Your task to perform on an android device: What's on the menu at Domino's? Image 0: 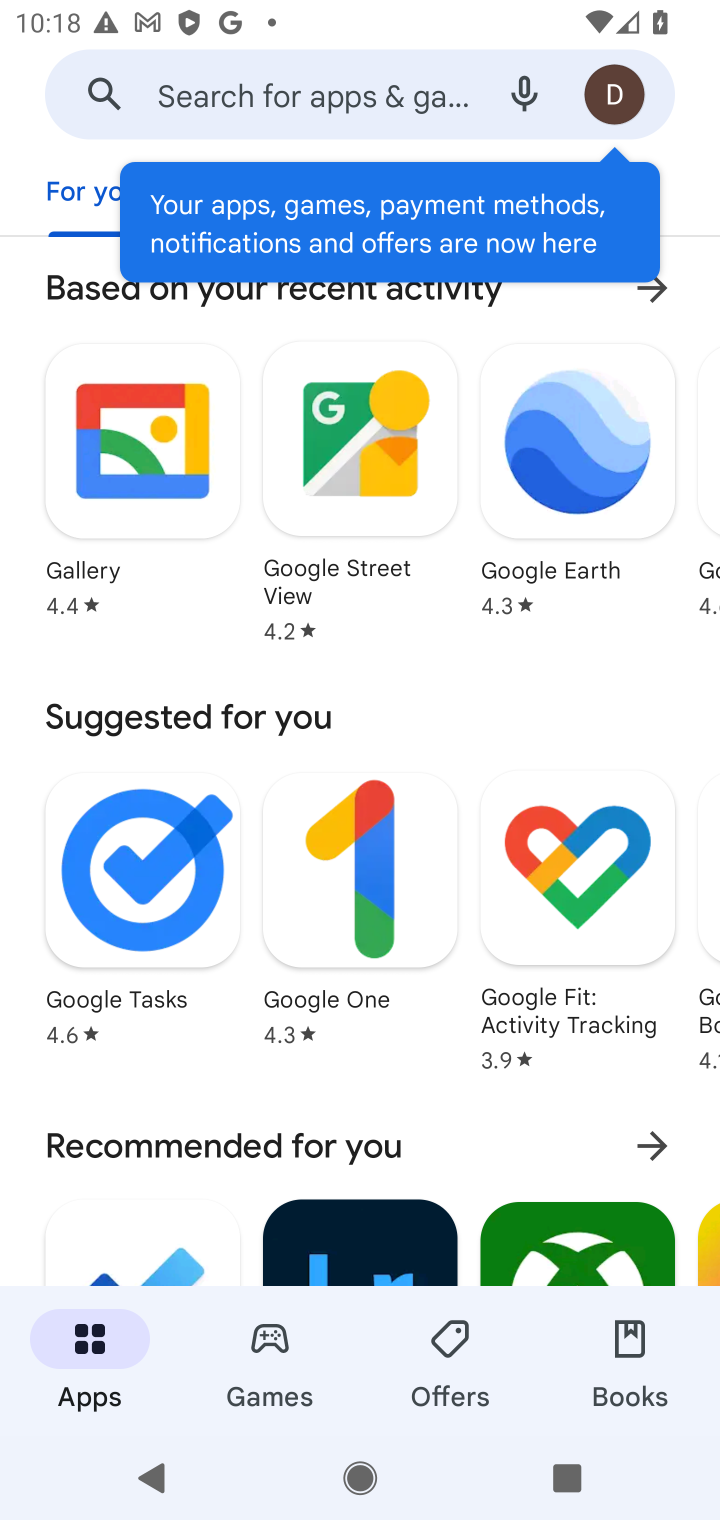
Step 0: press home button
Your task to perform on an android device: What's on the menu at Domino's? Image 1: 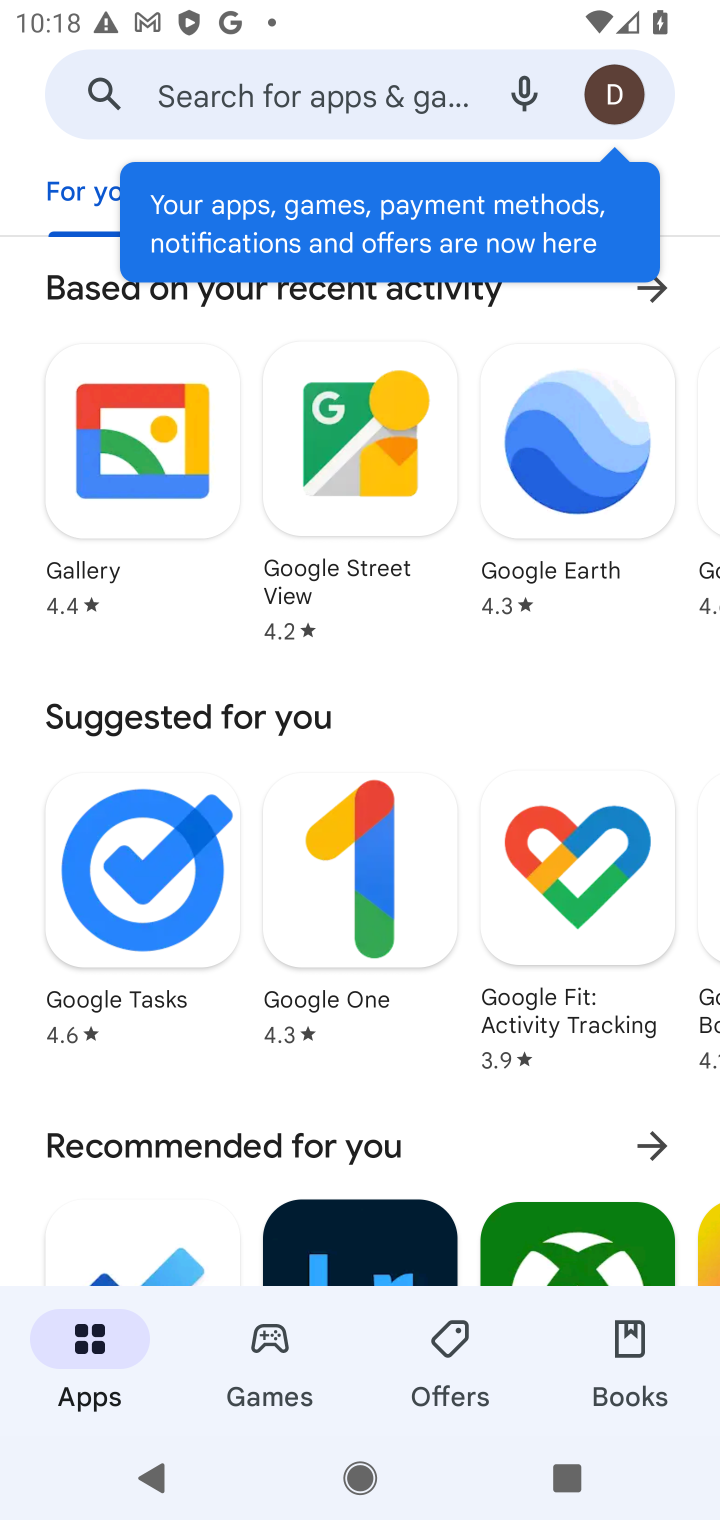
Step 1: press home button
Your task to perform on an android device: What's on the menu at Domino's? Image 2: 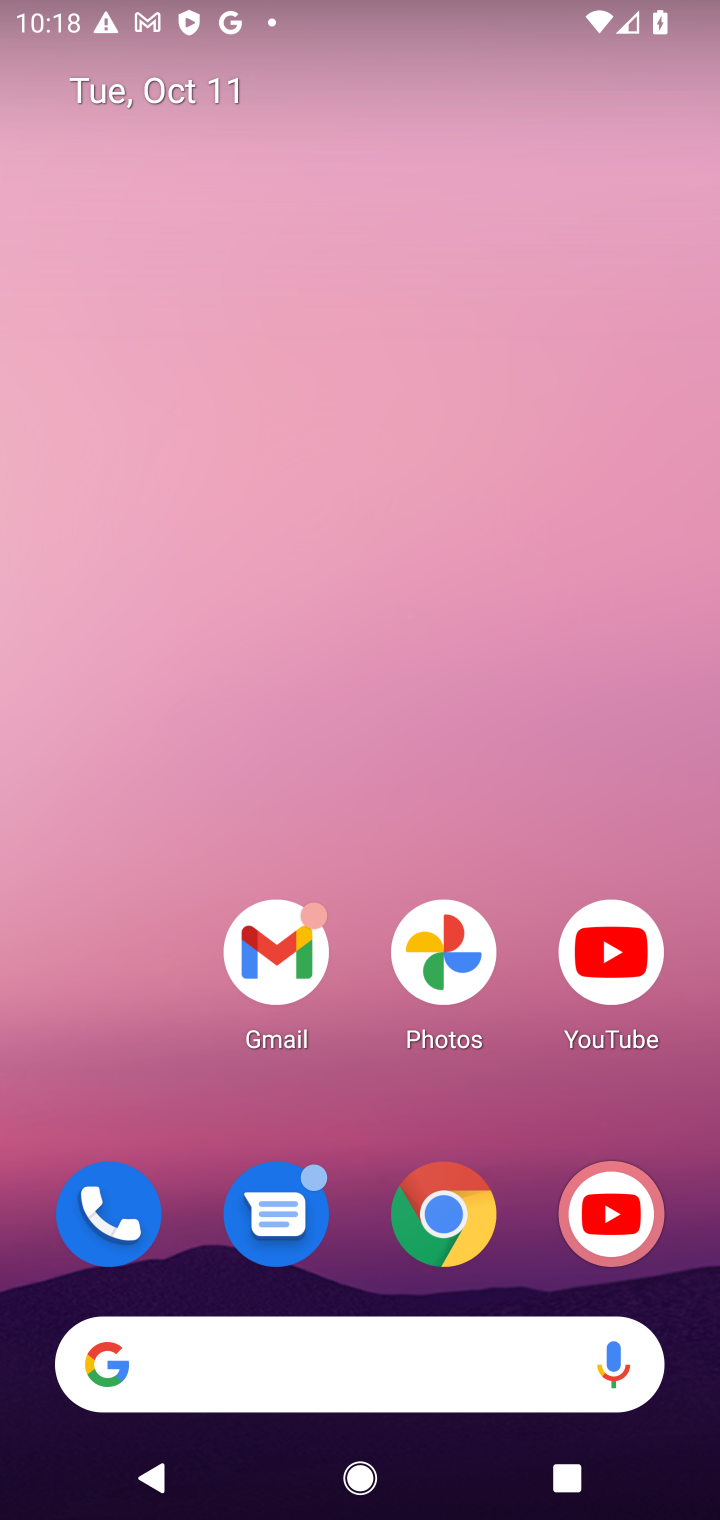
Step 2: drag from (357, 552) to (348, 1)
Your task to perform on an android device: What's on the menu at Domino's? Image 3: 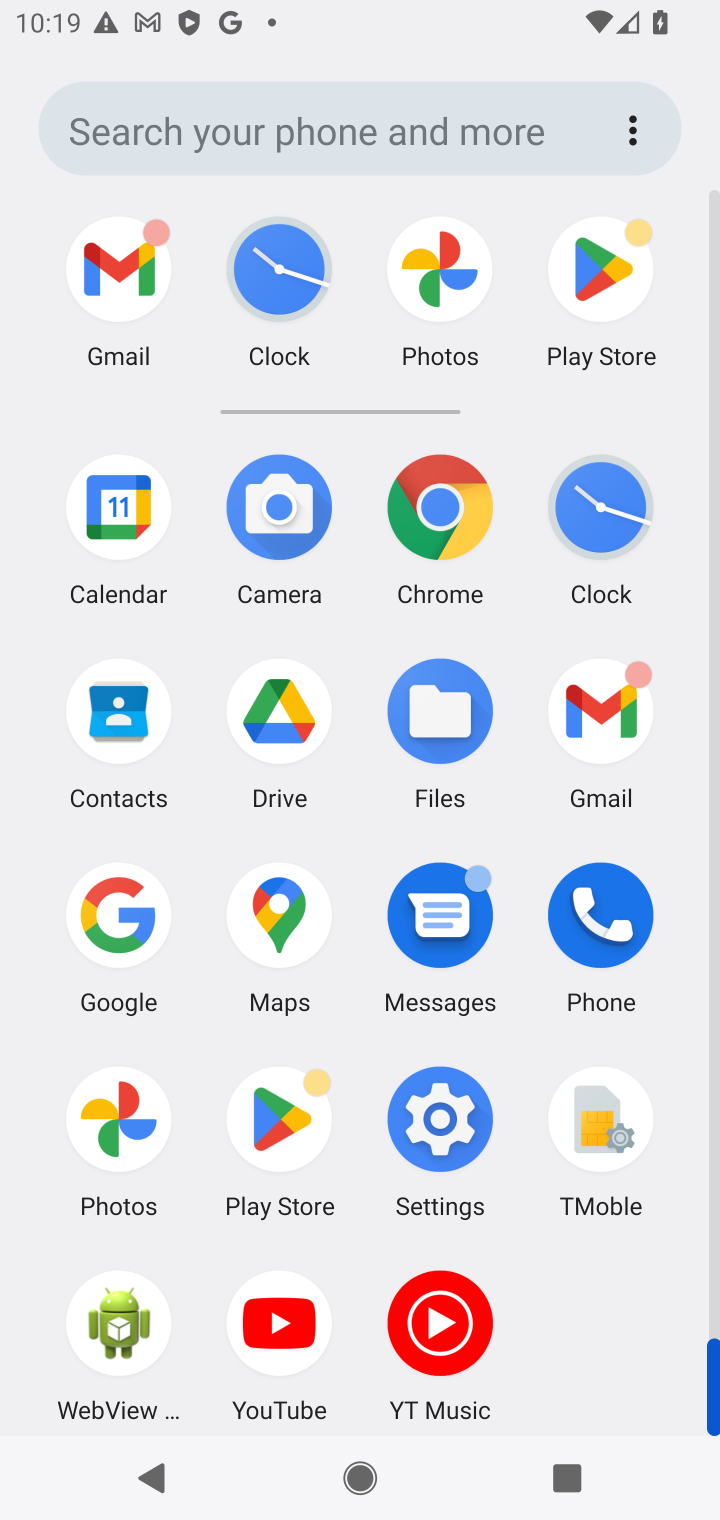
Step 3: click (425, 499)
Your task to perform on an android device: What's on the menu at Domino's? Image 4: 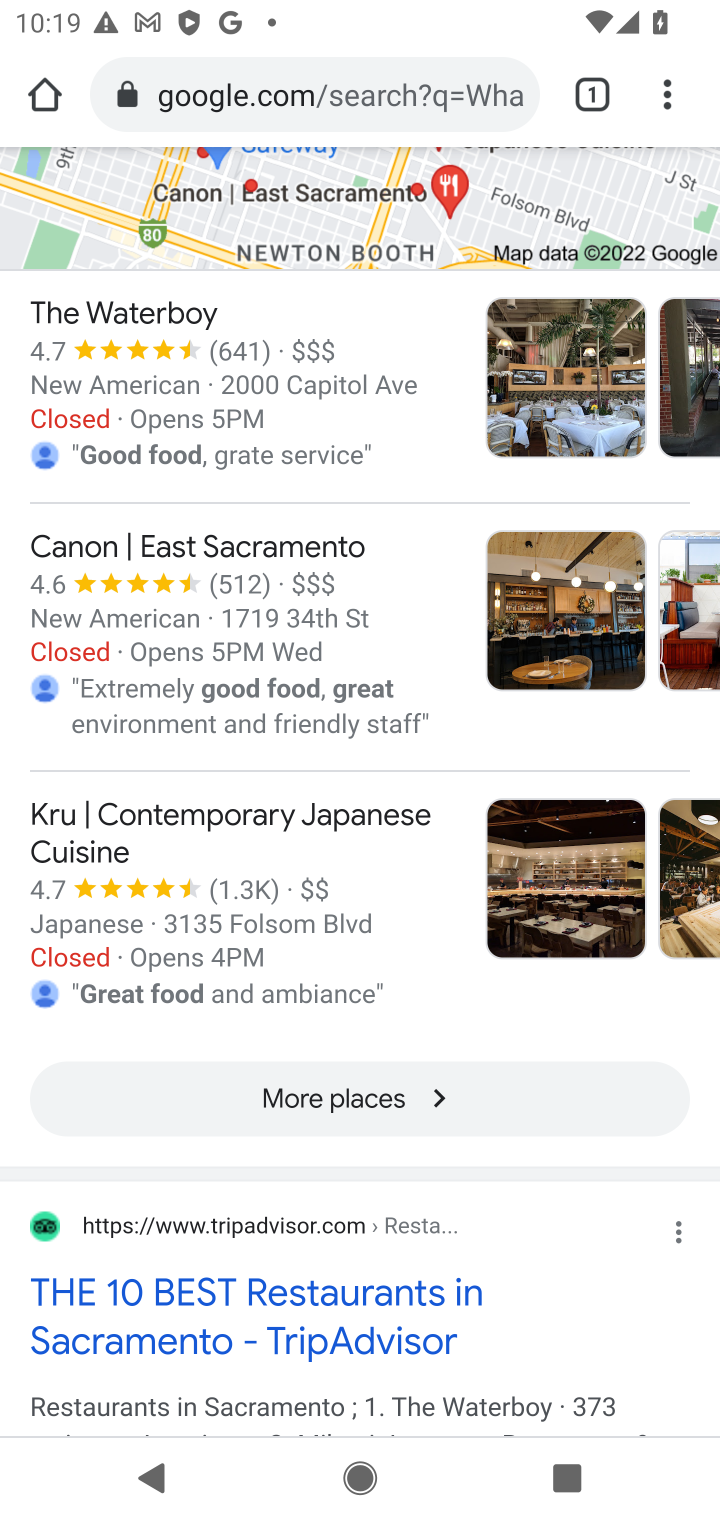
Step 4: click (376, 97)
Your task to perform on an android device: What's on the menu at Domino's? Image 5: 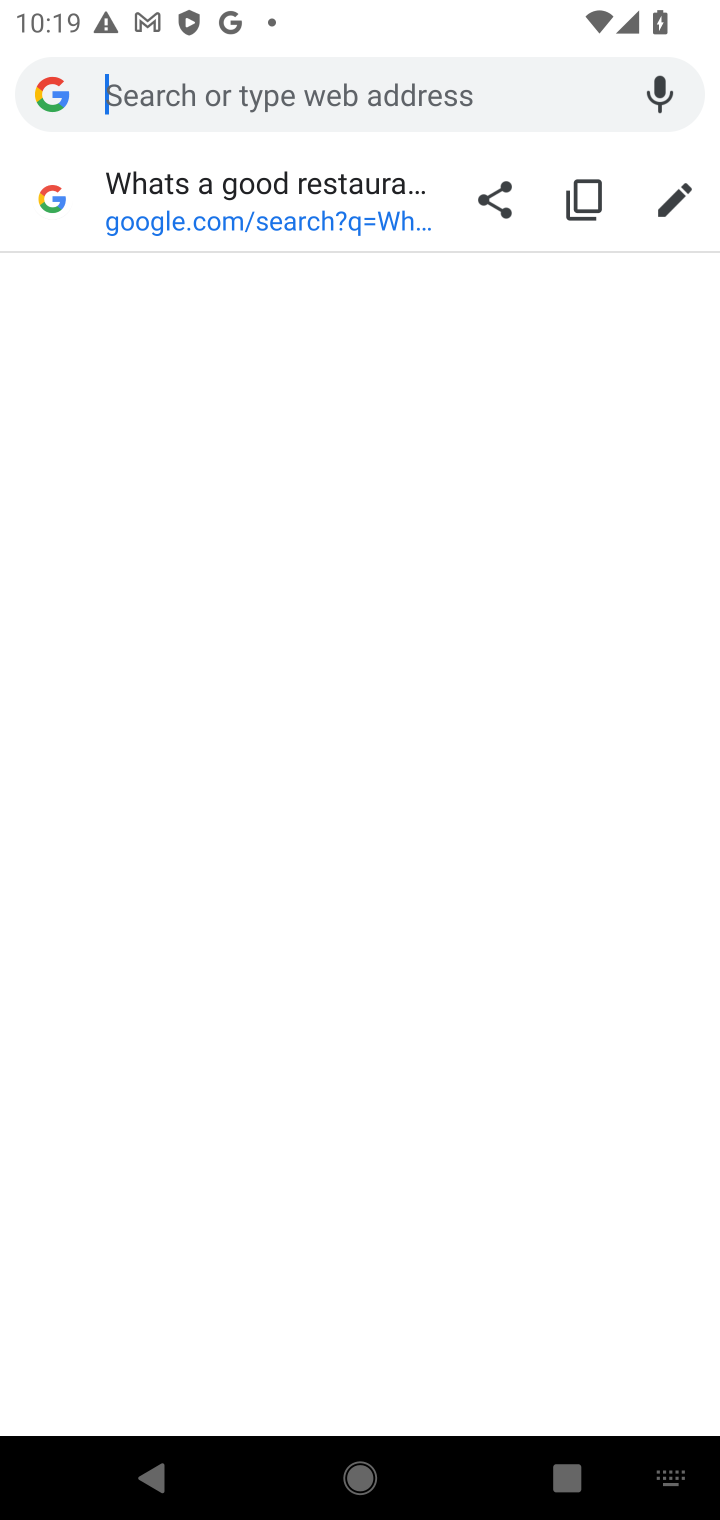
Step 5: type "What's on the menu at Domino's "
Your task to perform on an android device: What's on the menu at Domino's? Image 6: 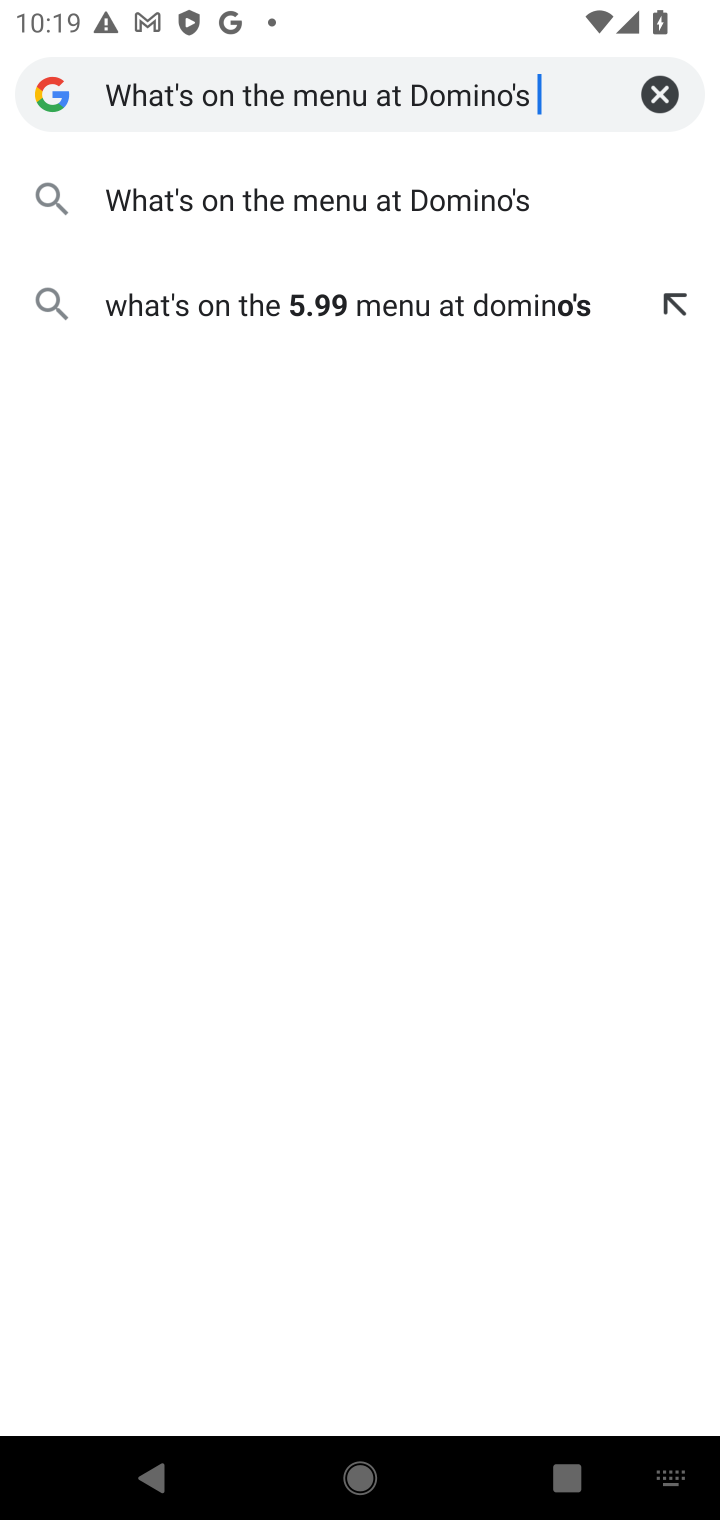
Step 6: press enter
Your task to perform on an android device: What's on the menu at Domino's? Image 7: 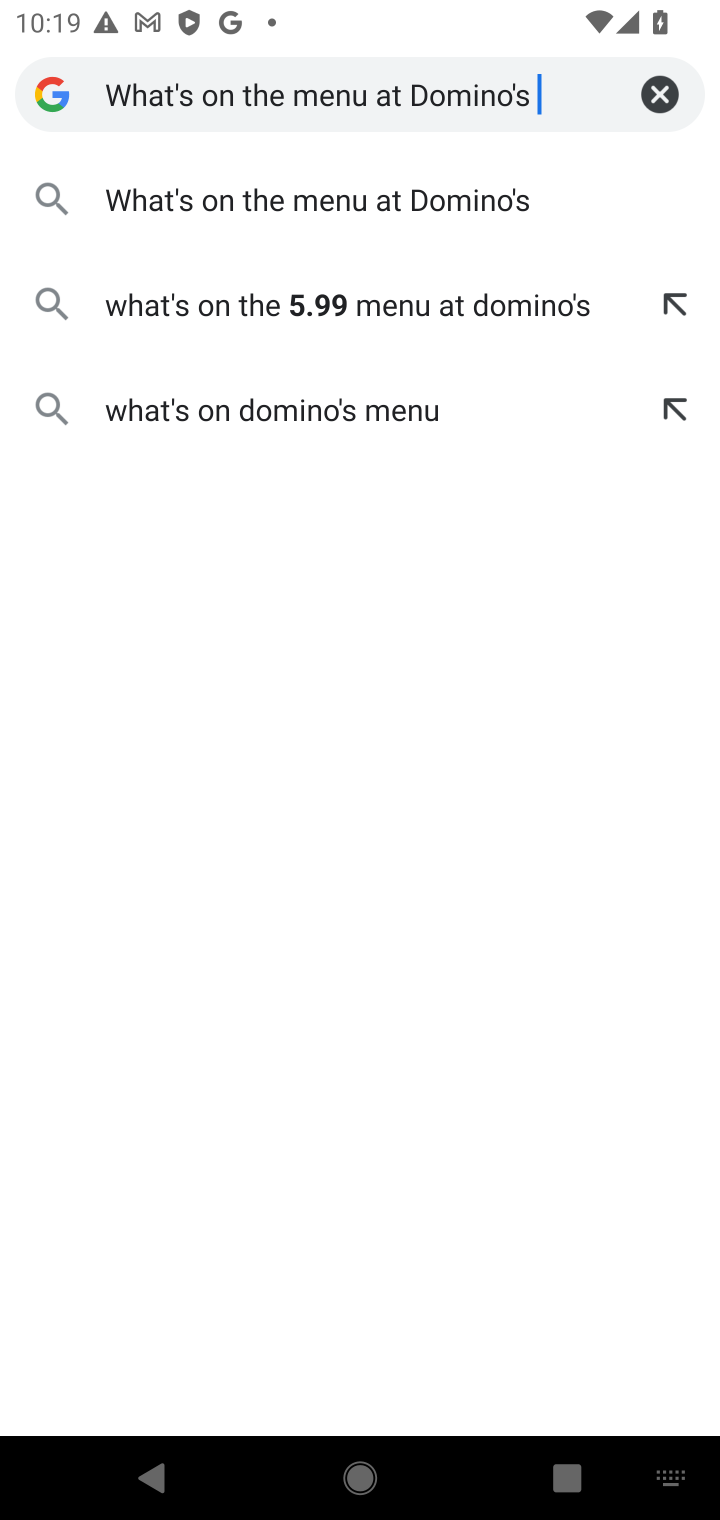
Step 7: type "?"
Your task to perform on an android device: What's on the menu at Domino's? Image 8: 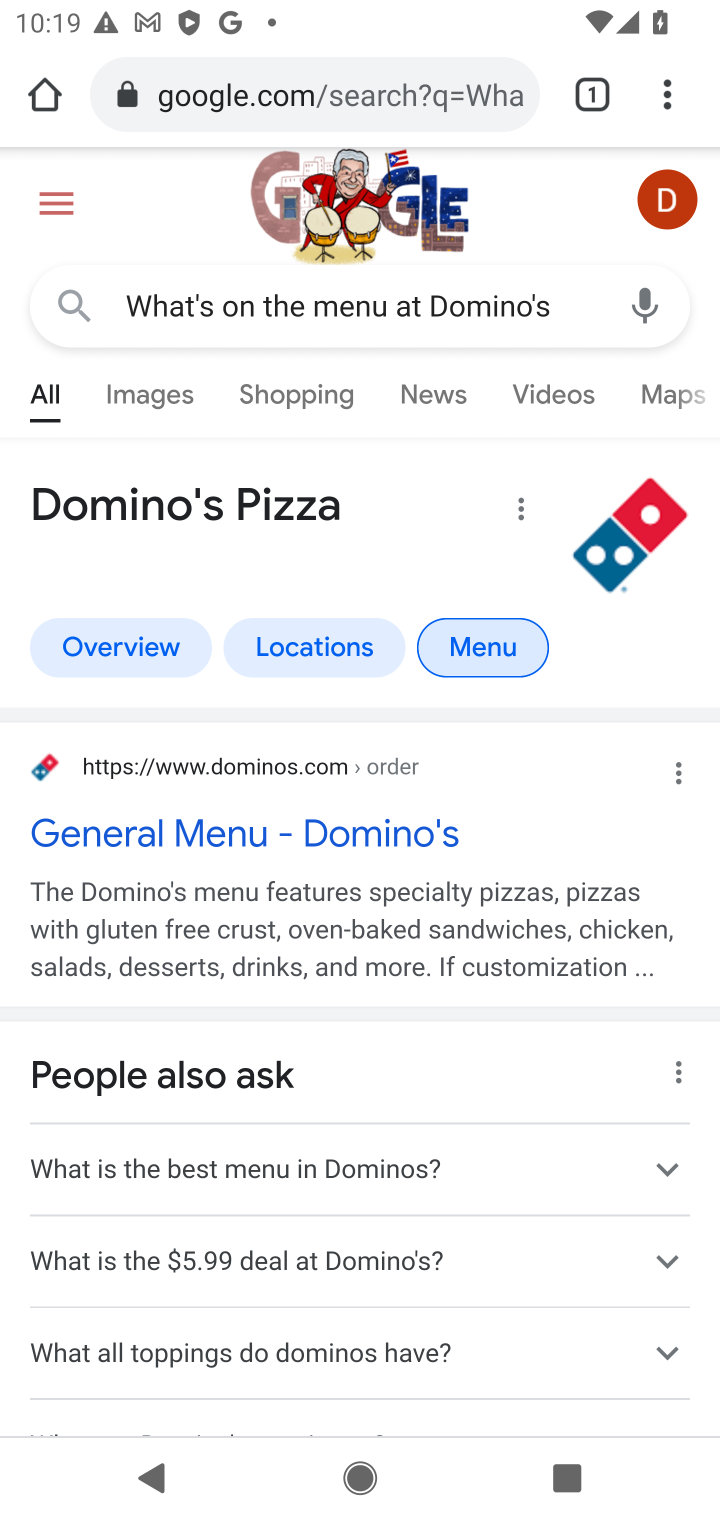
Step 8: click (477, 639)
Your task to perform on an android device: What's on the menu at Domino's? Image 9: 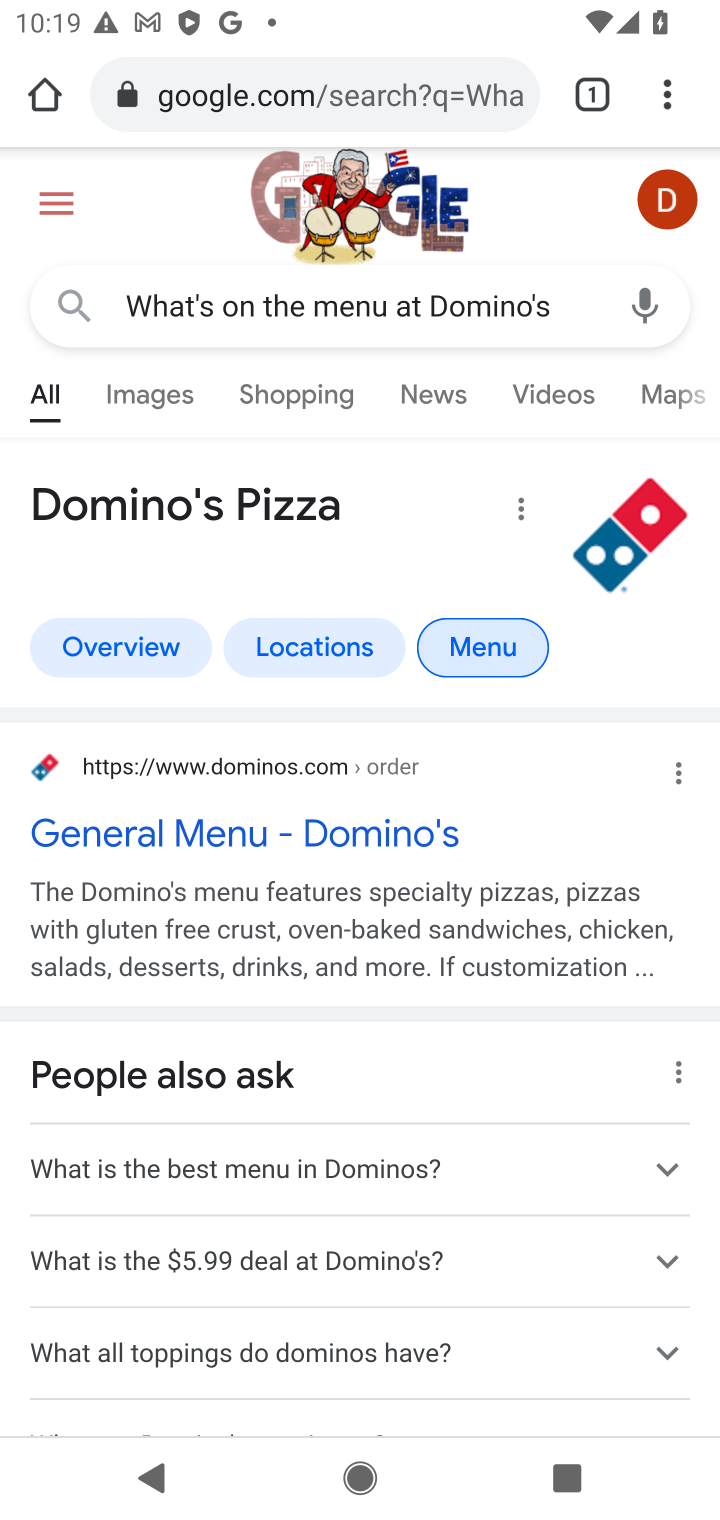
Step 9: click (462, 650)
Your task to perform on an android device: What's on the menu at Domino's? Image 10: 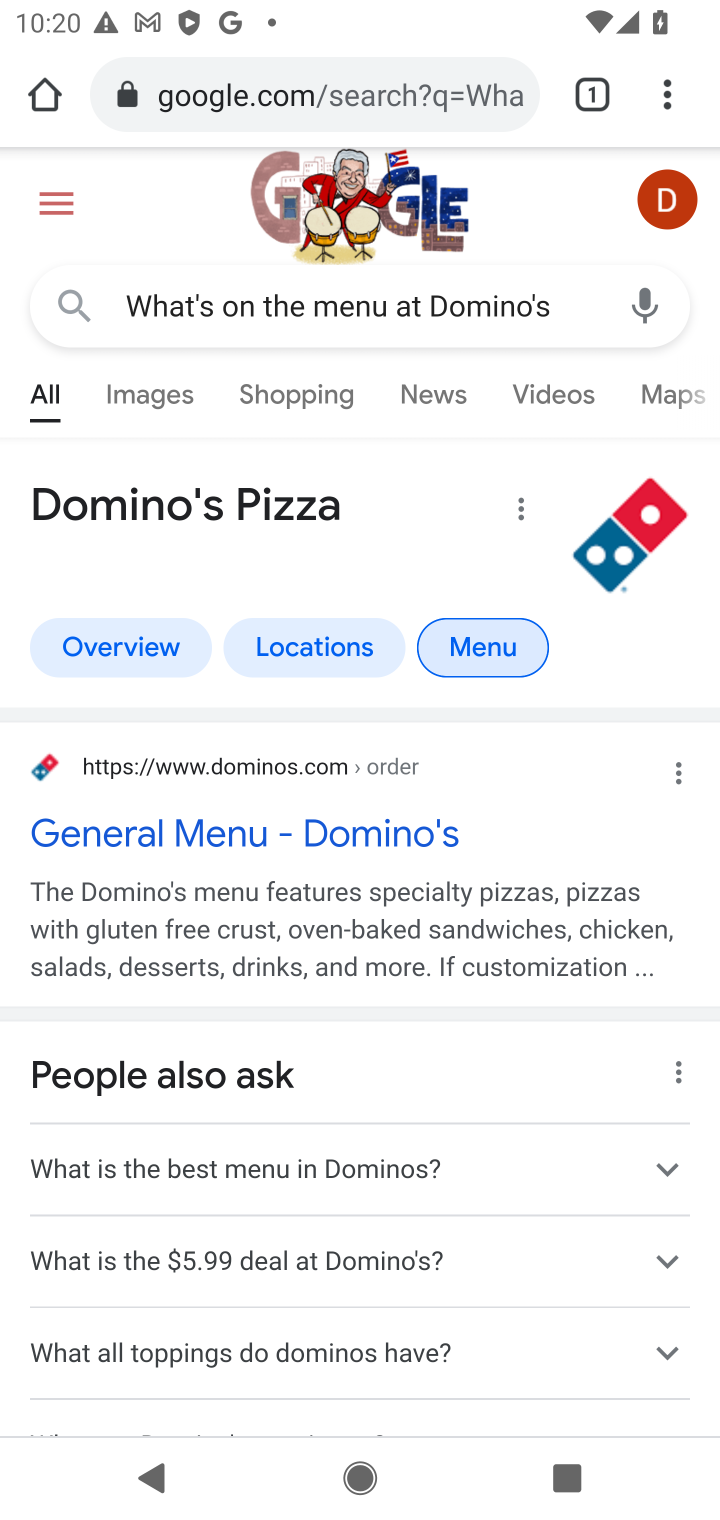
Step 10: click (453, 649)
Your task to perform on an android device: What's on the menu at Domino's? Image 11: 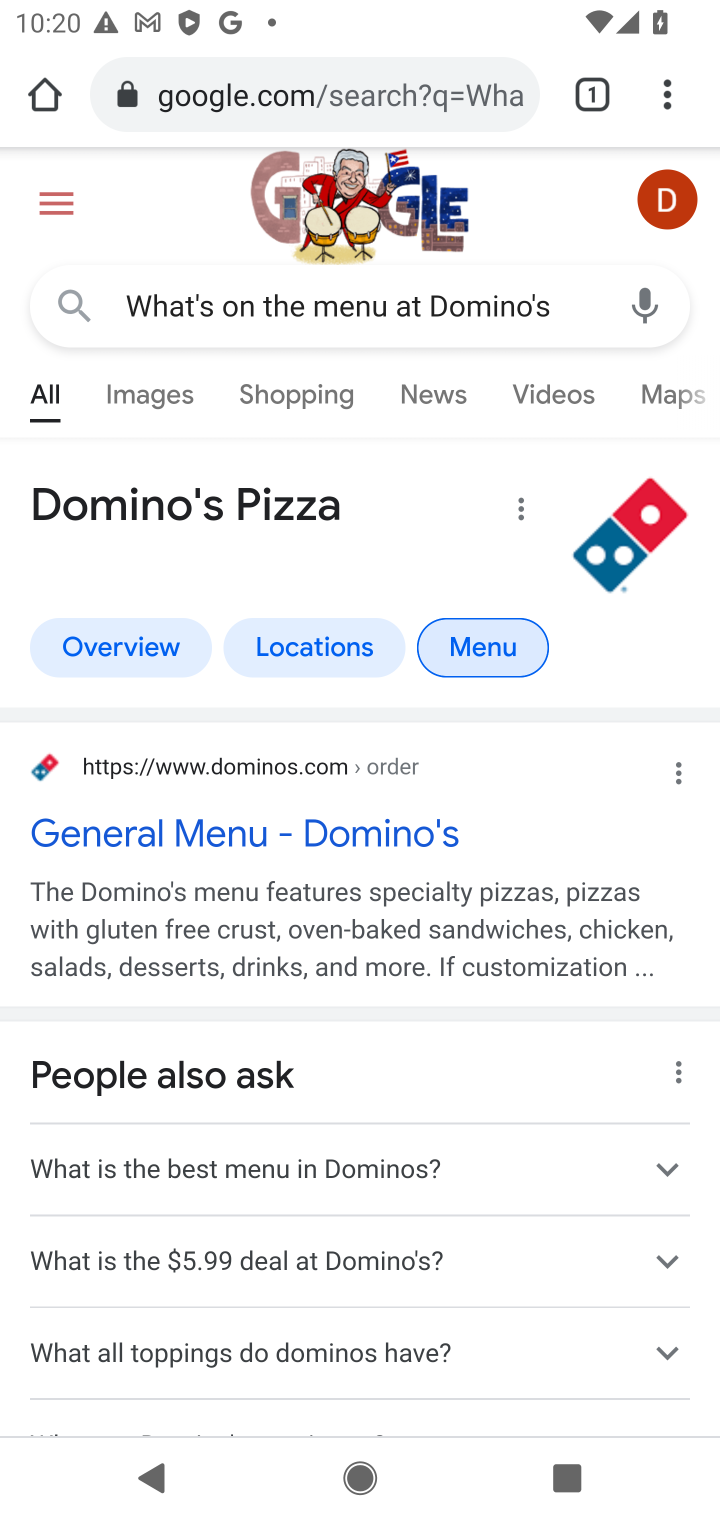
Step 11: click (468, 657)
Your task to perform on an android device: What's on the menu at Domino's? Image 12: 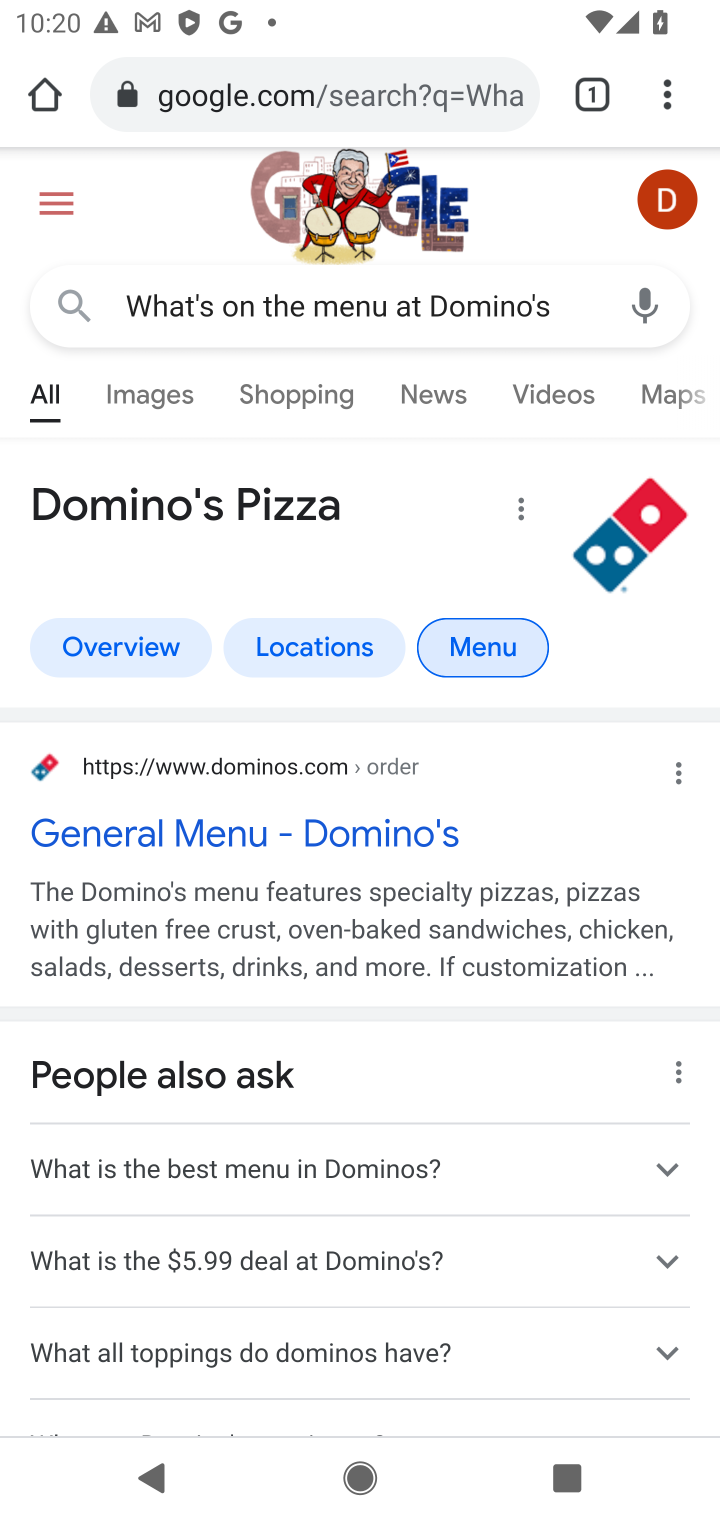
Step 12: click (456, 615)
Your task to perform on an android device: What's on the menu at Domino's? Image 13: 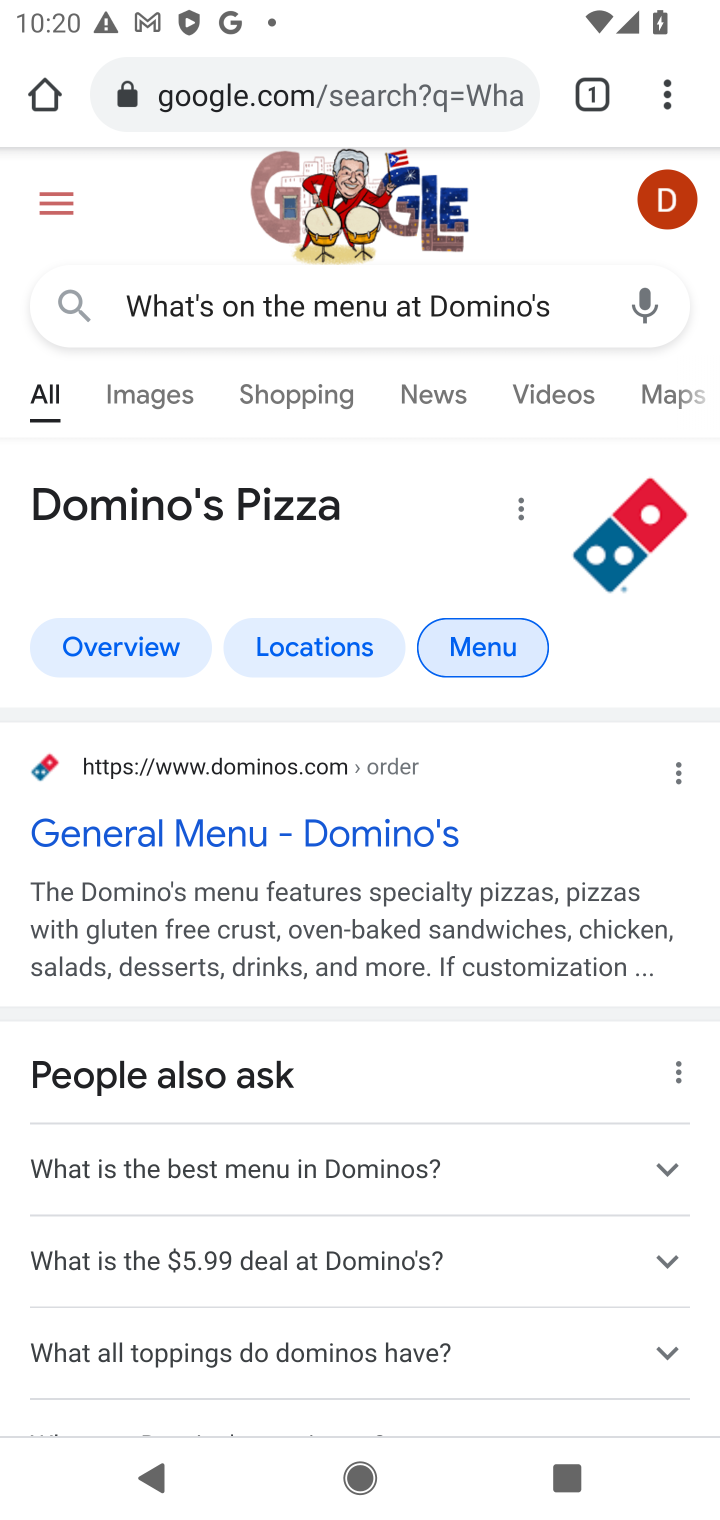
Step 13: click (476, 628)
Your task to perform on an android device: What's on the menu at Domino's? Image 14: 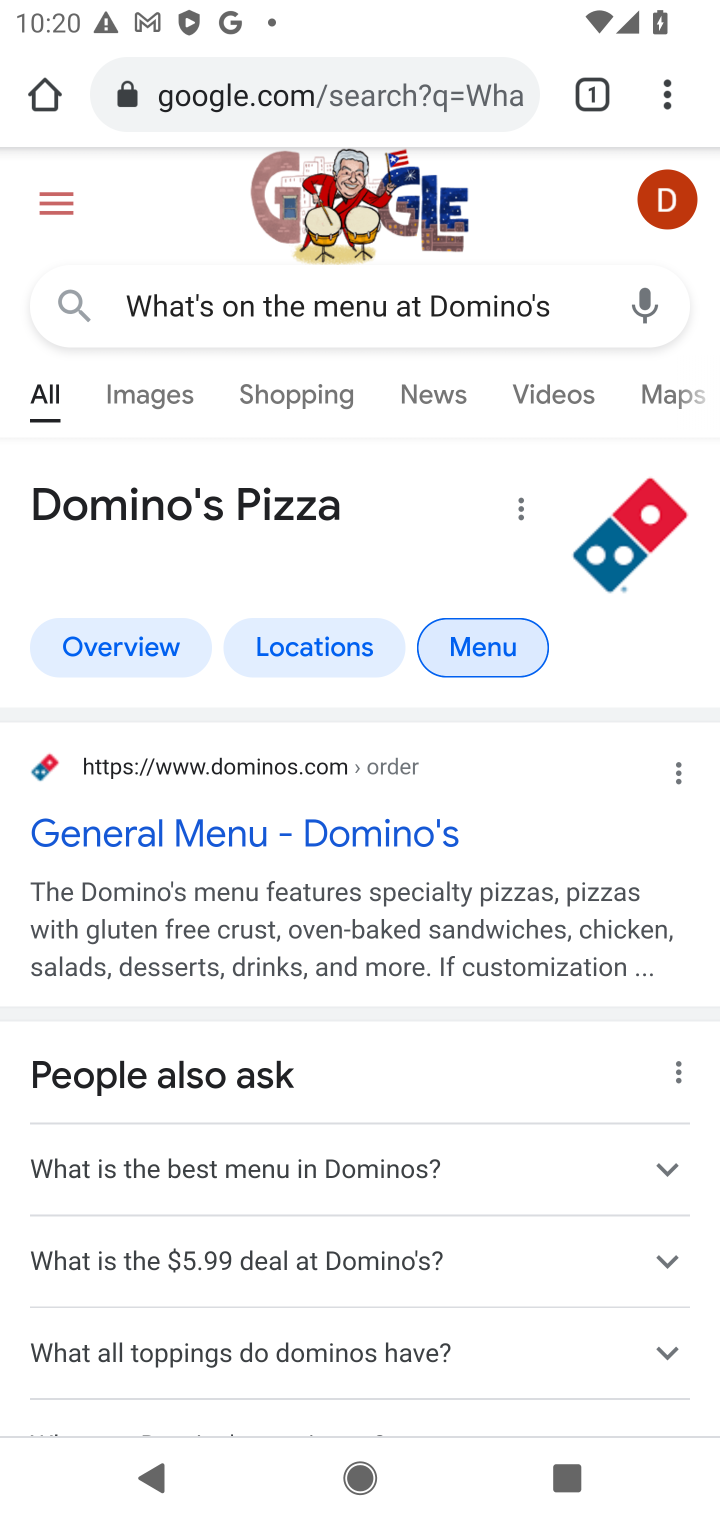
Step 14: click (476, 628)
Your task to perform on an android device: What's on the menu at Domino's? Image 15: 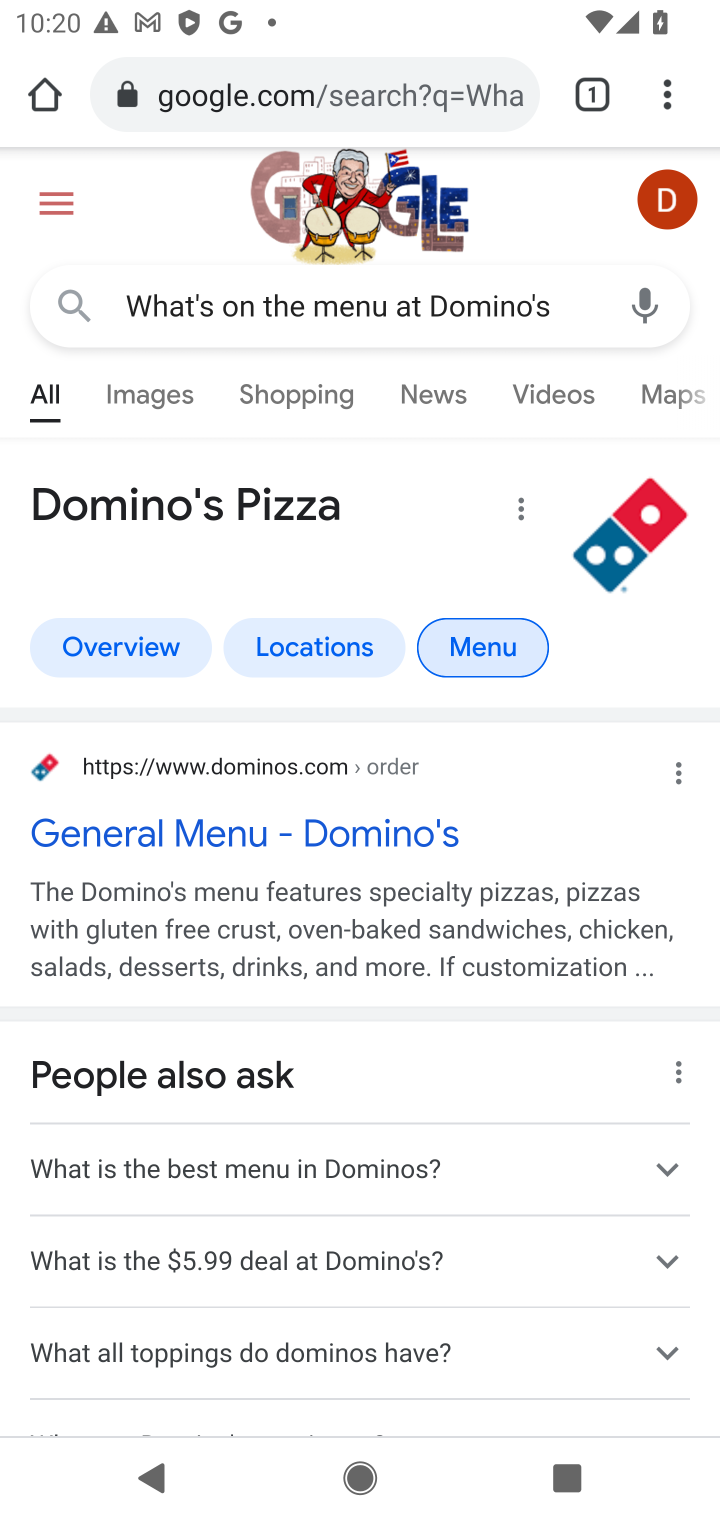
Step 15: click (312, 835)
Your task to perform on an android device: What's on the menu at Domino's? Image 16: 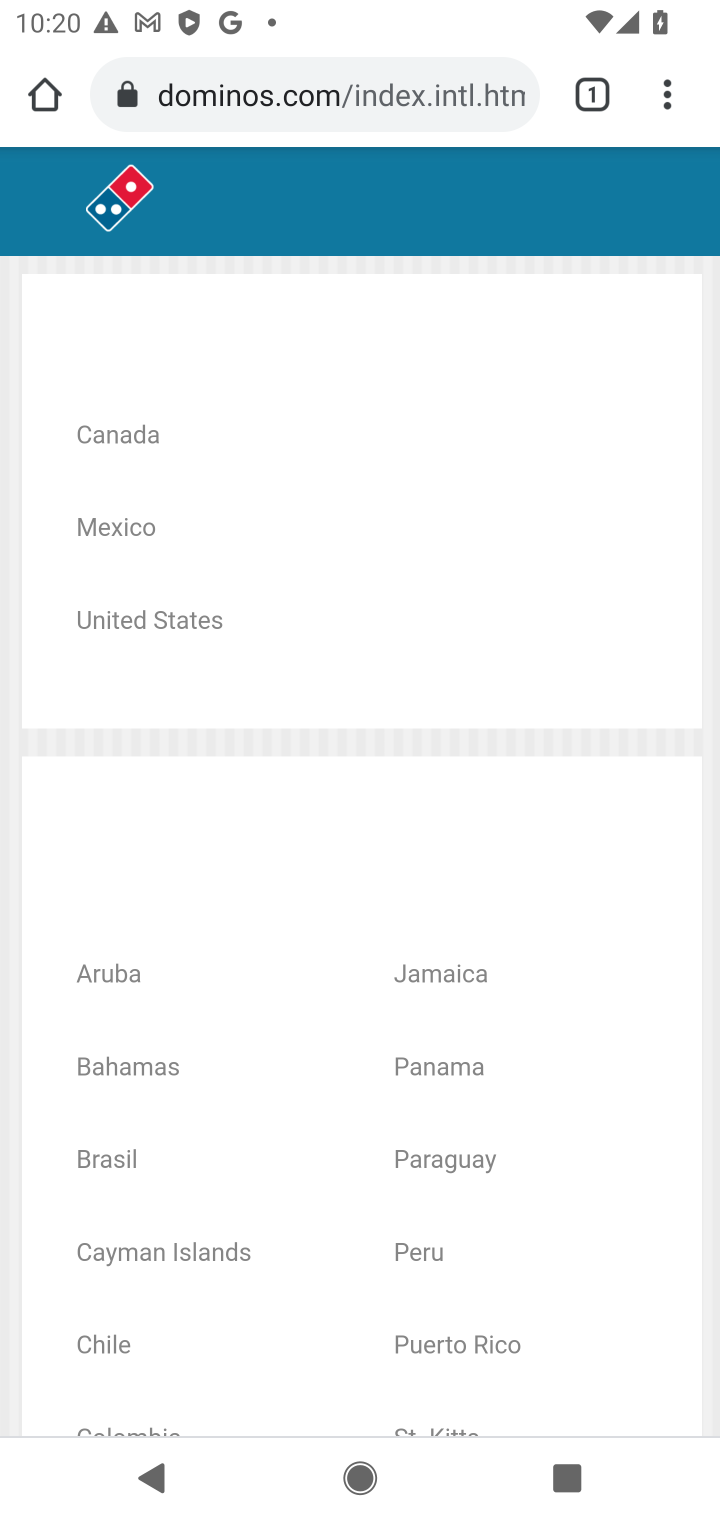
Step 16: click (132, 428)
Your task to perform on an android device: What's on the menu at Domino's? Image 17: 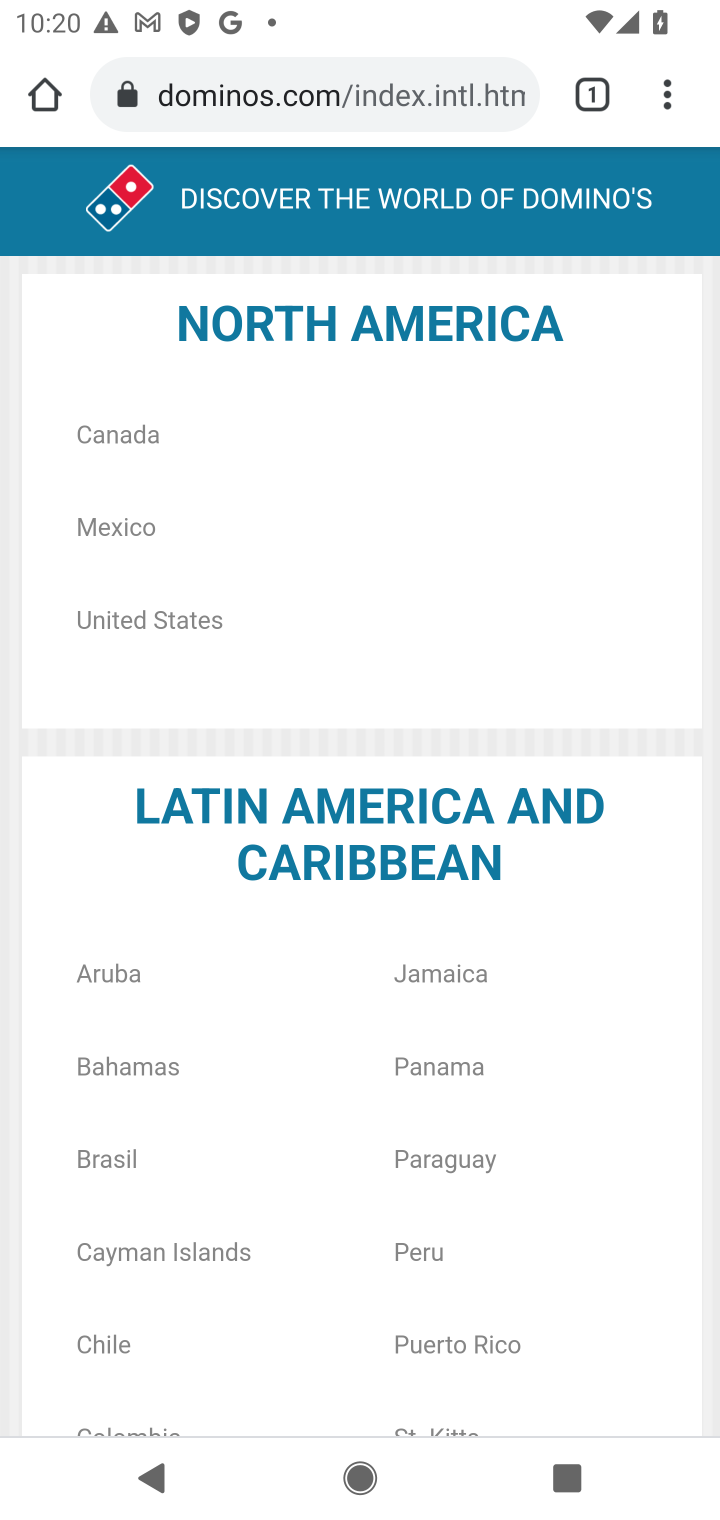
Step 17: click (127, 424)
Your task to perform on an android device: What's on the menu at Domino's? Image 18: 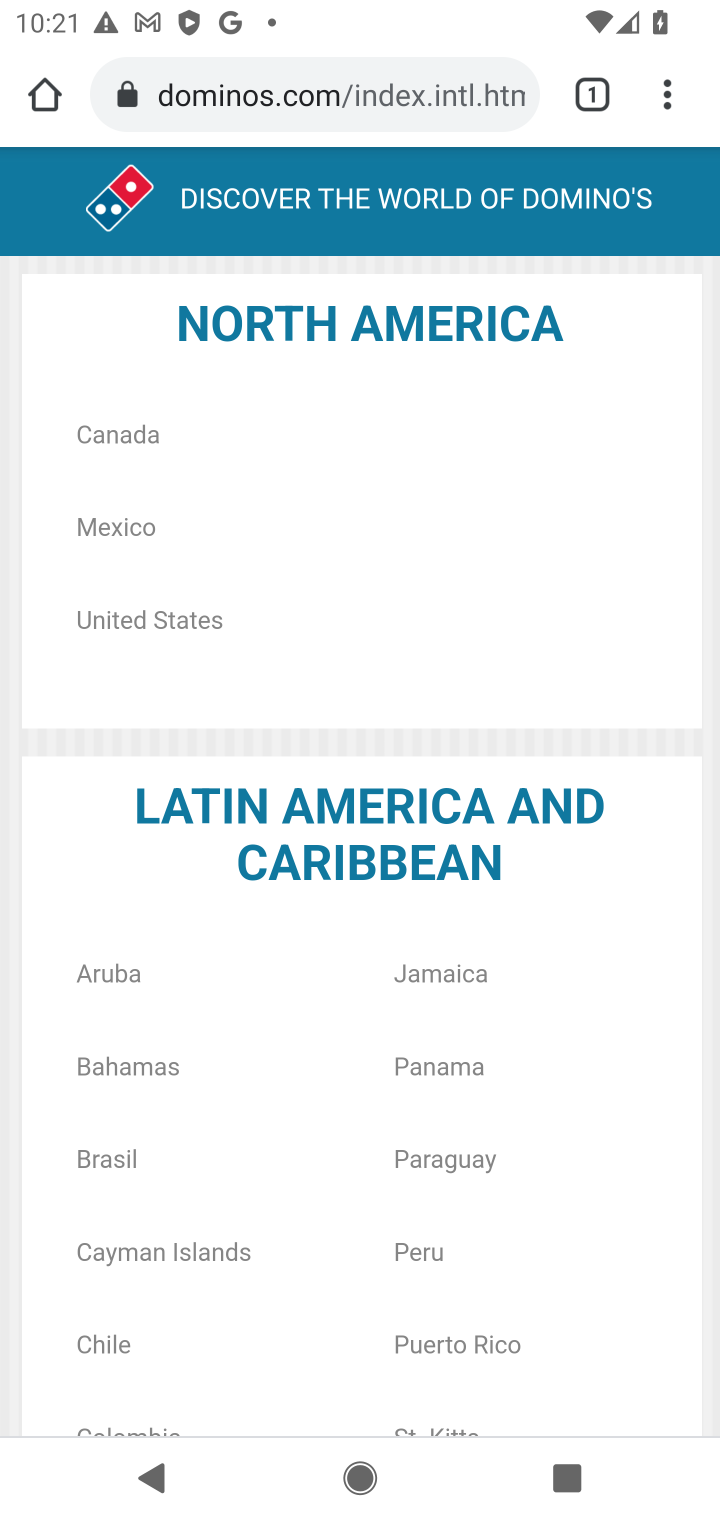
Step 18: click (141, 444)
Your task to perform on an android device: What's on the menu at Domino's? Image 19: 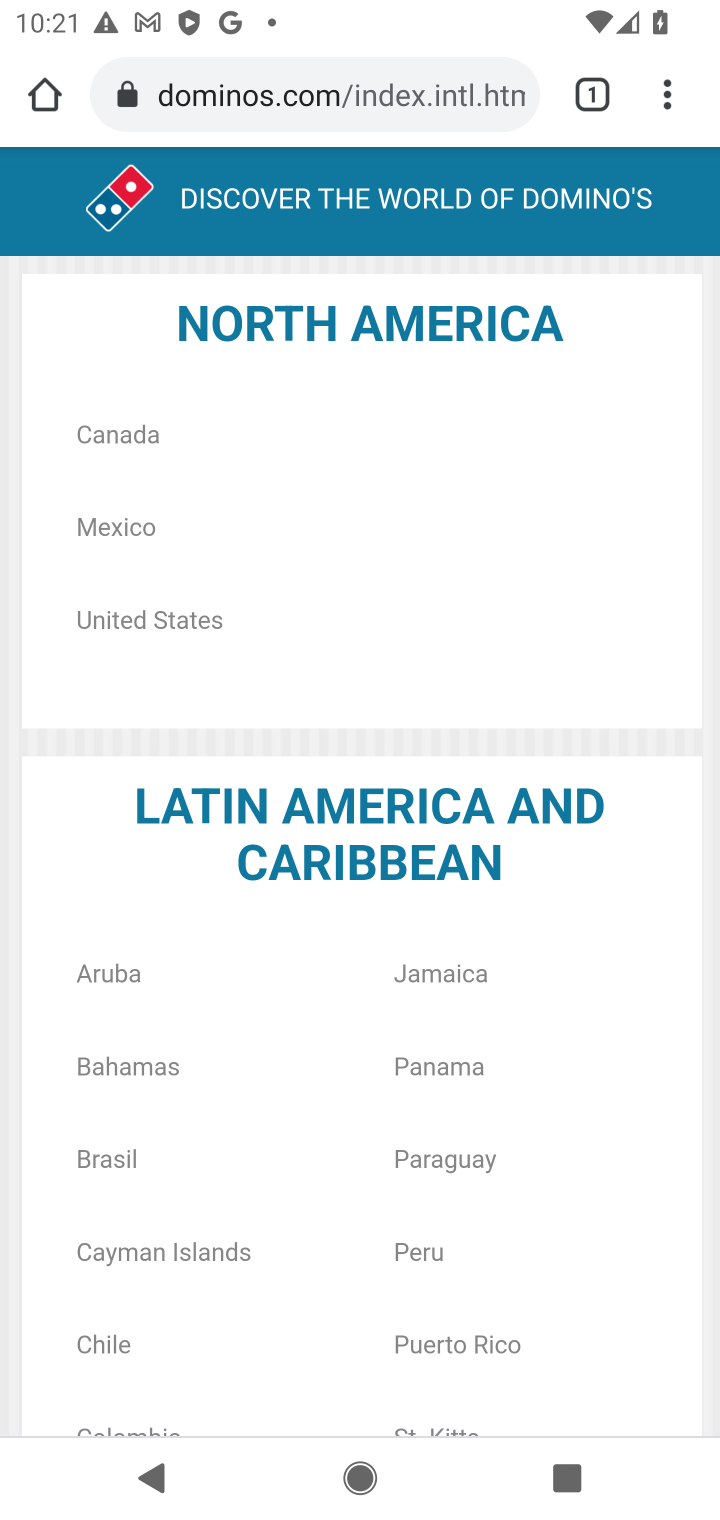
Step 19: task complete